Your task to perform on an android device: Open the phone app and click the voicemail tab. Image 0: 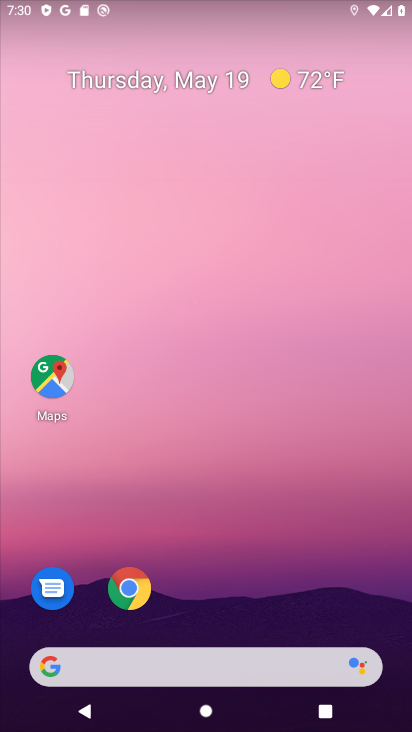
Step 0: drag from (332, 616) to (310, 71)
Your task to perform on an android device: Open the phone app and click the voicemail tab. Image 1: 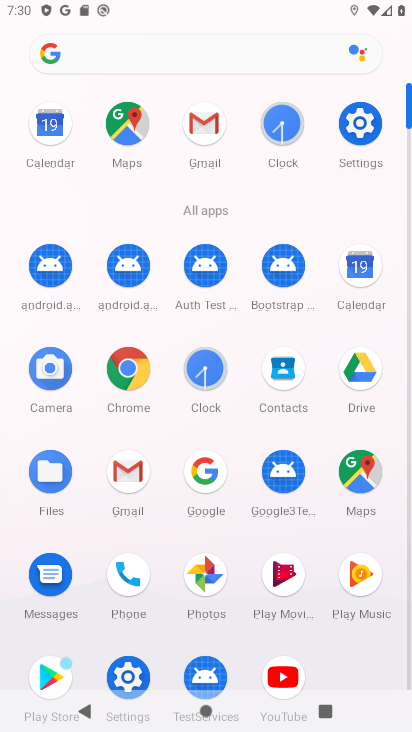
Step 1: click (133, 567)
Your task to perform on an android device: Open the phone app and click the voicemail tab. Image 2: 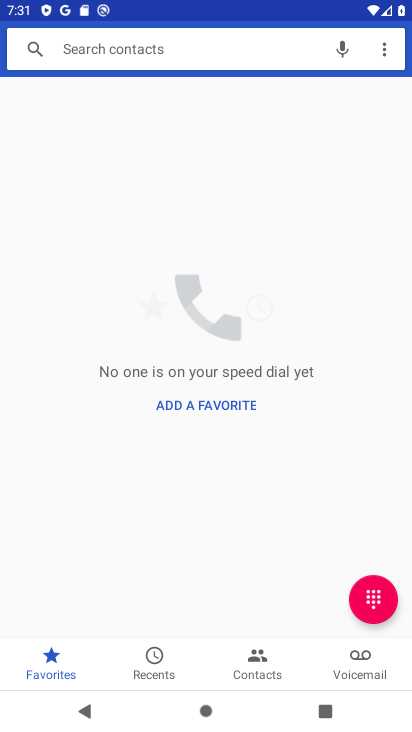
Step 2: click (372, 661)
Your task to perform on an android device: Open the phone app and click the voicemail tab. Image 3: 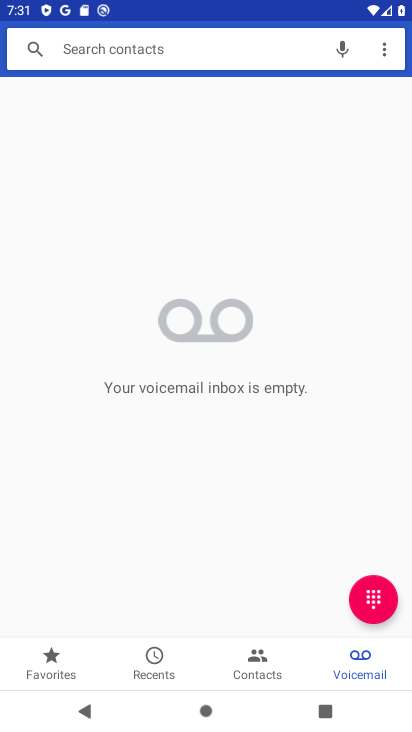
Step 3: task complete